Your task to perform on an android device: Open maps Image 0: 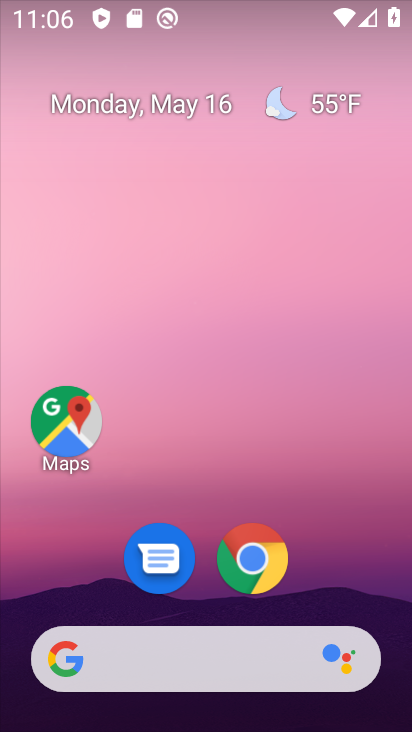
Step 0: click (61, 425)
Your task to perform on an android device: Open maps Image 1: 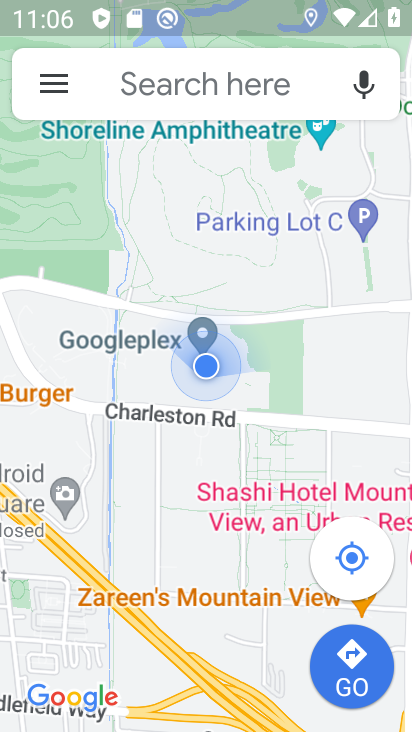
Step 1: task complete